Your task to perform on an android device: change keyboard looks Image 0: 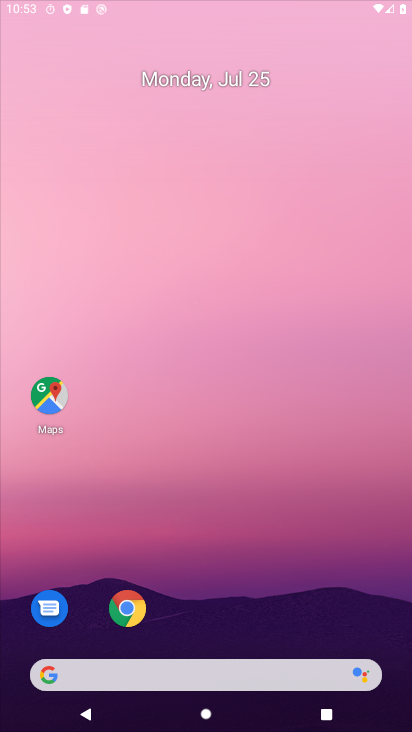
Step 0: drag from (252, 566) to (254, 82)
Your task to perform on an android device: change keyboard looks Image 1: 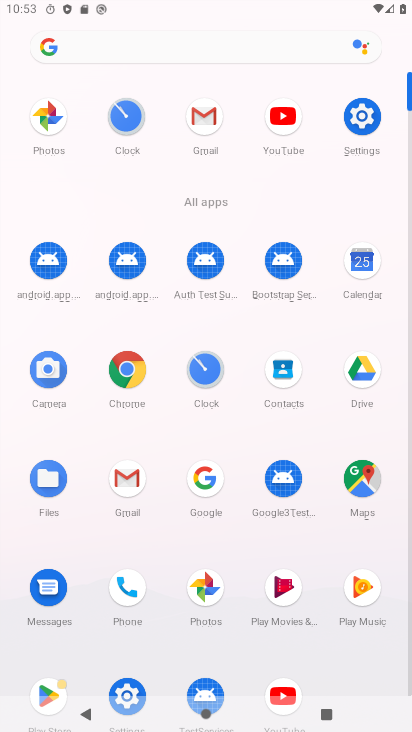
Step 1: click (367, 114)
Your task to perform on an android device: change keyboard looks Image 2: 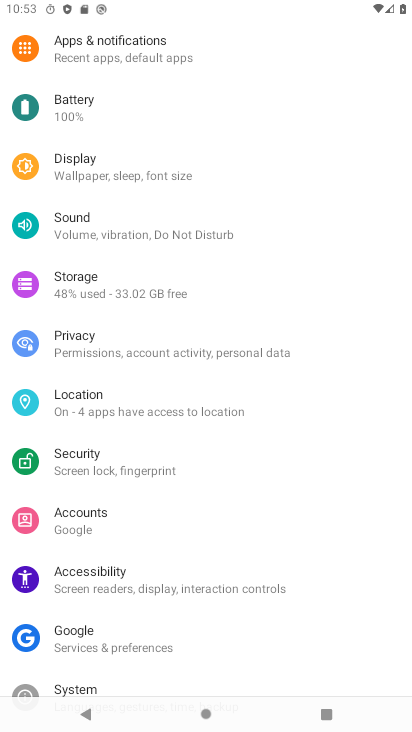
Step 2: drag from (133, 605) to (245, 8)
Your task to perform on an android device: change keyboard looks Image 3: 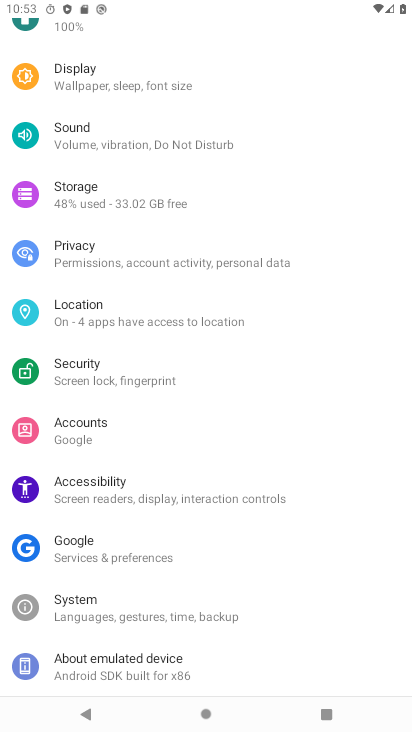
Step 3: drag from (140, 654) to (210, 254)
Your task to perform on an android device: change keyboard looks Image 4: 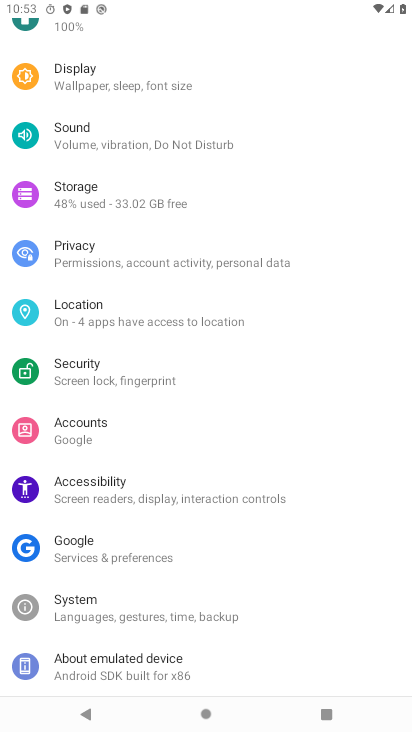
Step 4: drag from (136, 672) to (238, 87)
Your task to perform on an android device: change keyboard looks Image 5: 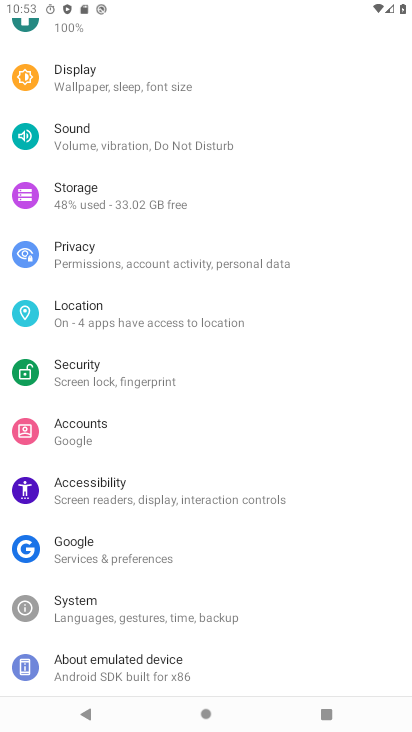
Step 5: click (120, 615)
Your task to perform on an android device: change keyboard looks Image 6: 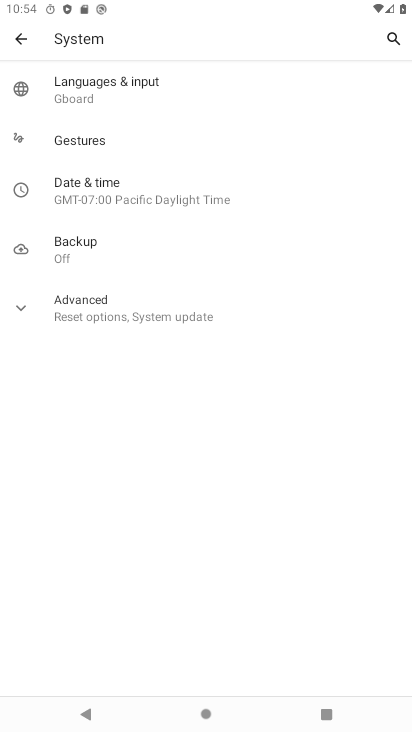
Step 6: click (96, 92)
Your task to perform on an android device: change keyboard looks Image 7: 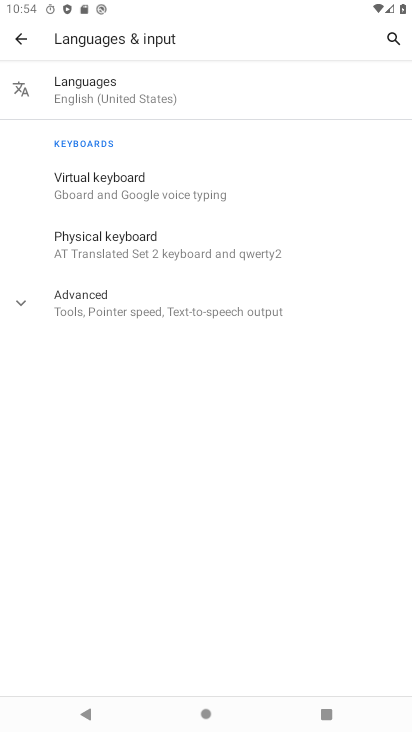
Step 7: click (126, 190)
Your task to perform on an android device: change keyboard looks Image 8: 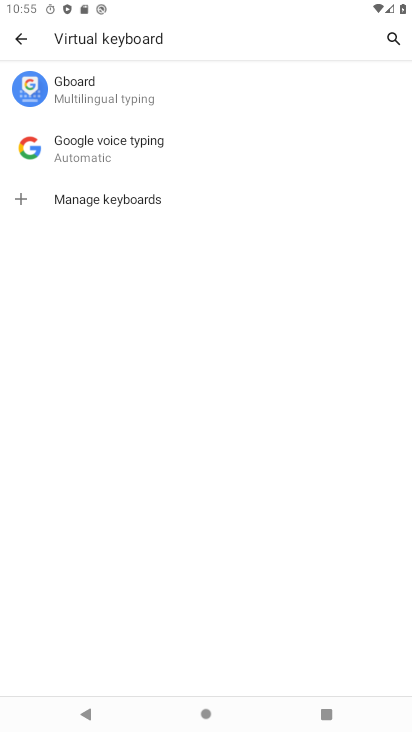
Step 8: click (97, 93)
Your task to perform on an android device: change keyboard looks Image 9: 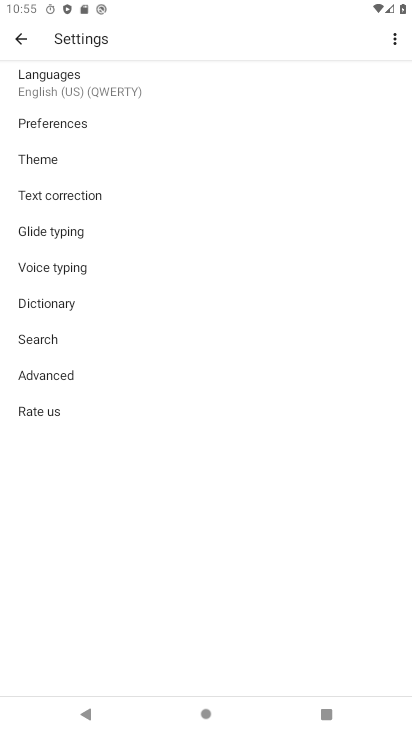
Step 9: click (59, 166)
Your task to perform on an android device: change keyboard looks Image 10: 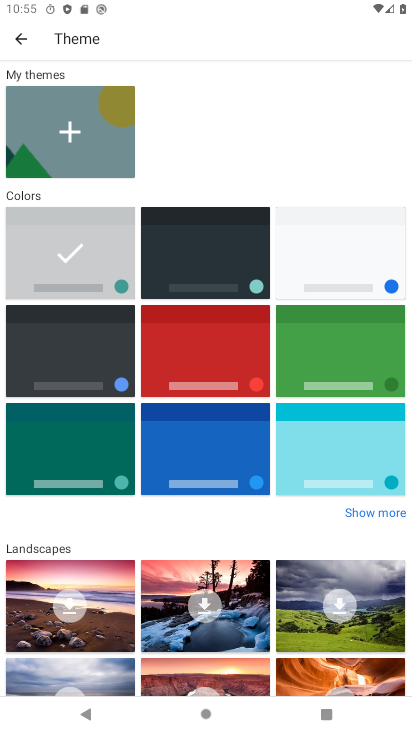
Step 10: click (196, 241)
Your task to perform on an android device: change keyboard looks Image 11: 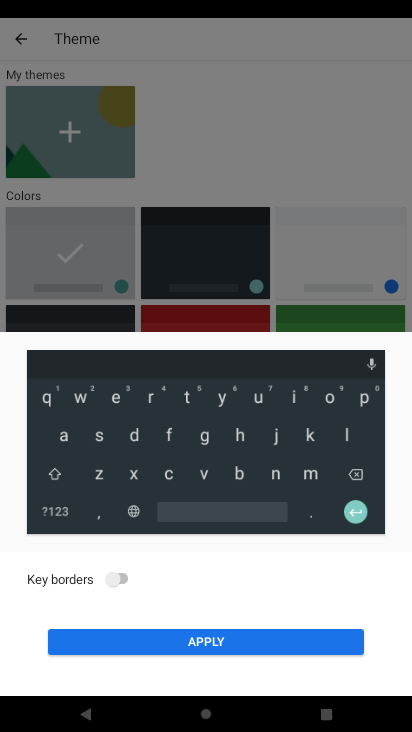
Step 11: click (167, 642)
Your task to perform on an android device: change keyboard looks Image 12: 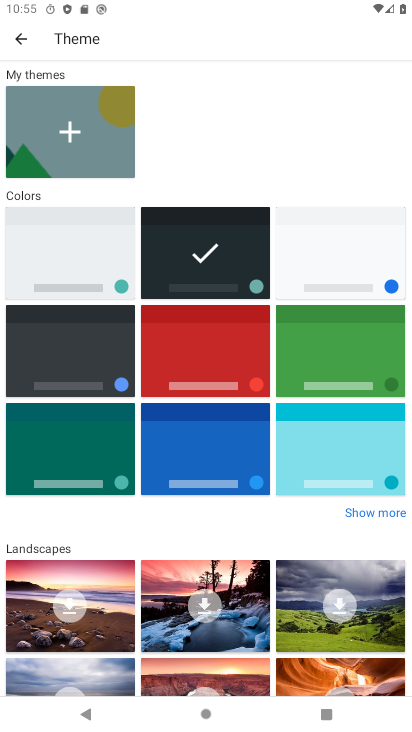
Step 12: task complete